Your task to perform on an android device: turn off airplane mode Image 0: 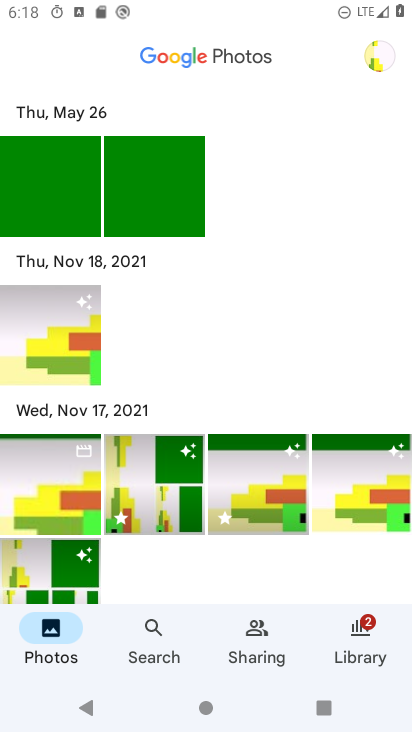
Step 0: press home button
Your task to perform on an android device: turn off airplane mode Image 1: 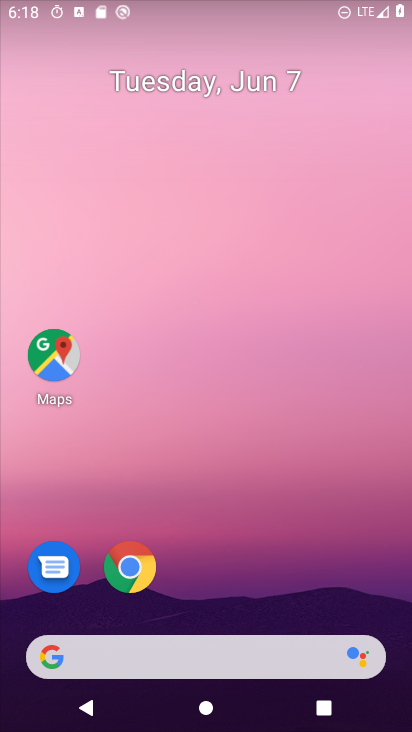
Step 1: drag from (256, 658) to (333, 145)
Your task to perform on an android device: turn off airplane mode Image 2: 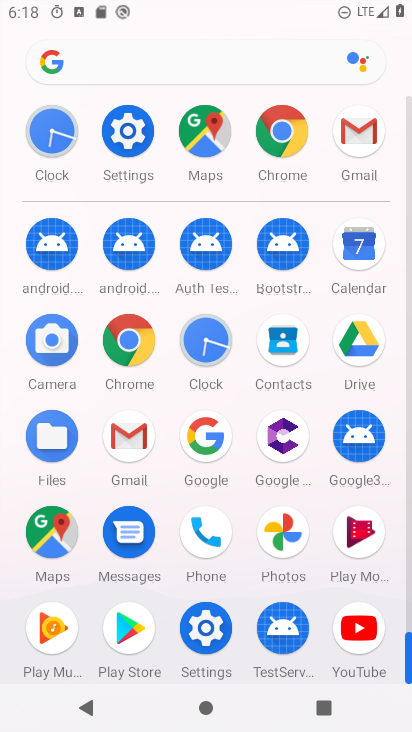
Step 2: click (100, 153)
Your task to perform on an android device: turn off airplane mode Image 3: 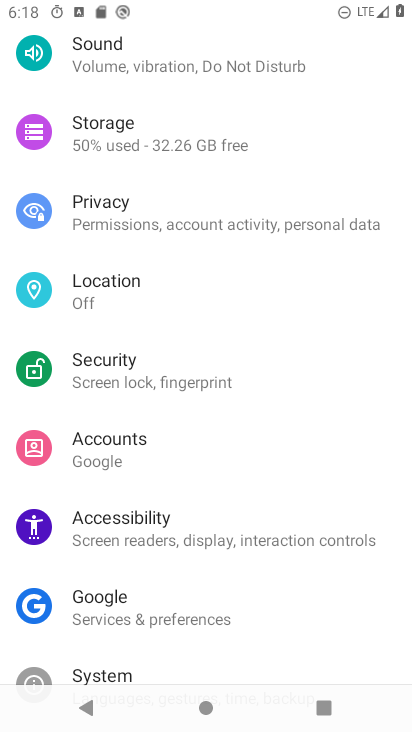
Step 3: drag from (266, 172) to (333, 712)
Your task to perform on an android device: turn off airplane mode Image 4: 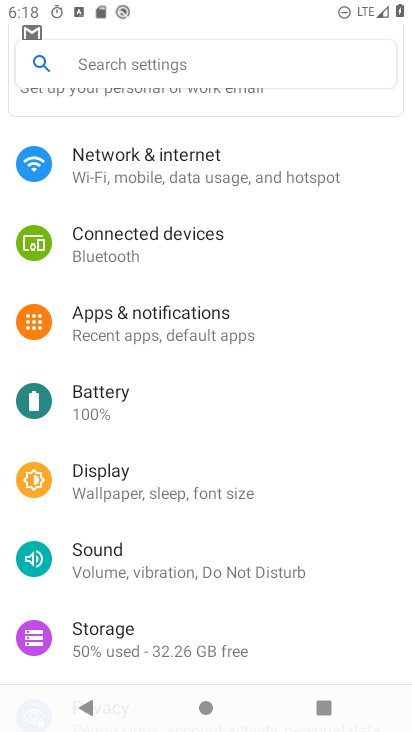
Step 4: click (222, 165)
Your task to perform on an android device: turn off airplane mode Image 5: 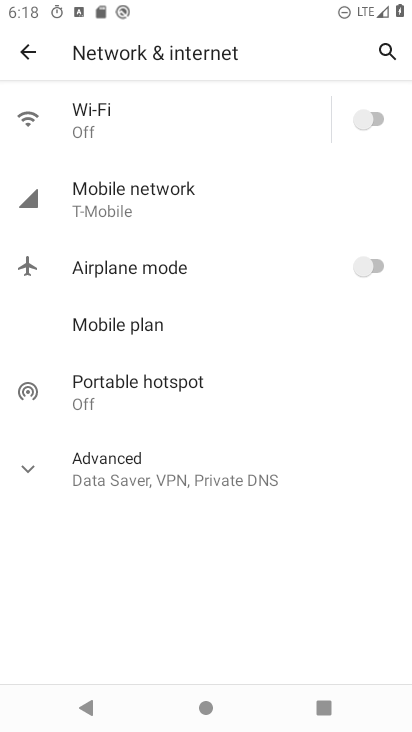
Step 5: task complete